Your task to perform on an android device: change the clock style Image 0: 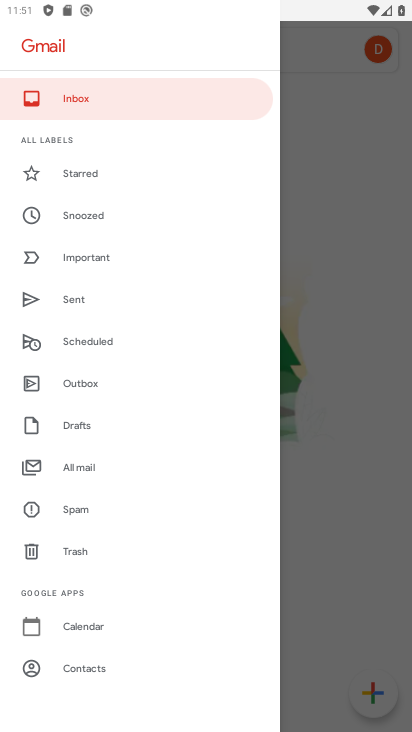
Step 0: press home button
Your task to perform on an android device: change the clock style Image 1: 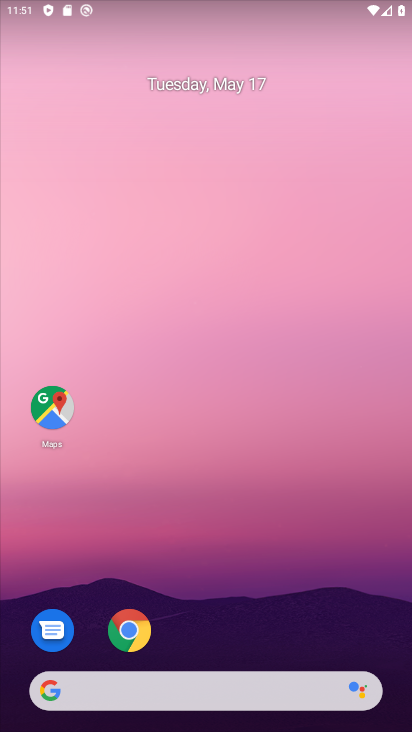
Step 1: drag from (305, 593) to (270, 259)
Your task to perform on an android device: change the clock style Image 2: 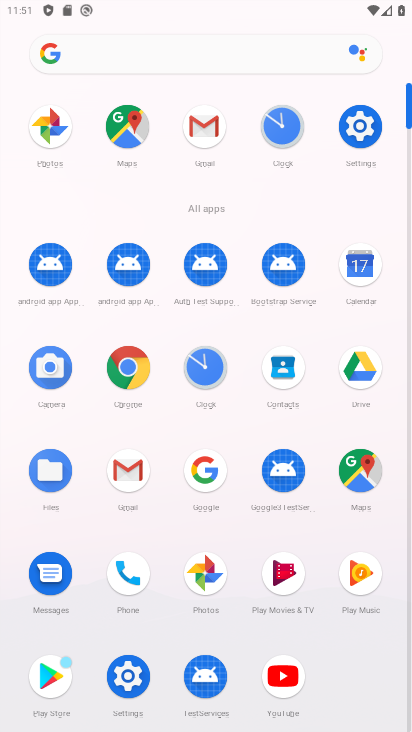
Step 2: click (277, 132)
Your task to perform on an android device: change the clock style Image 3: 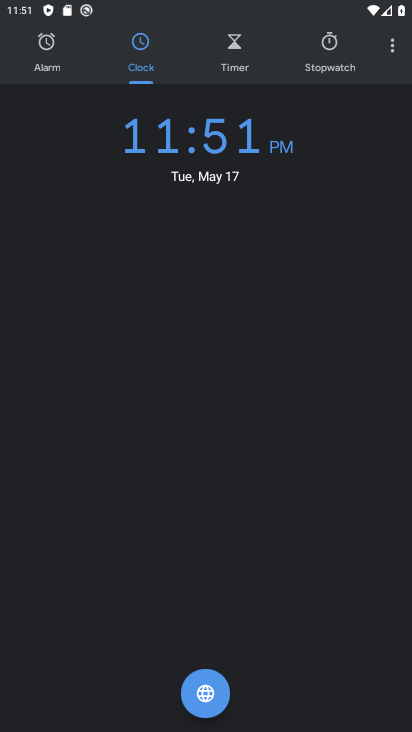
Step 3: click (385, 52)
Your task to perform on an android device: change the clock style Image 4: 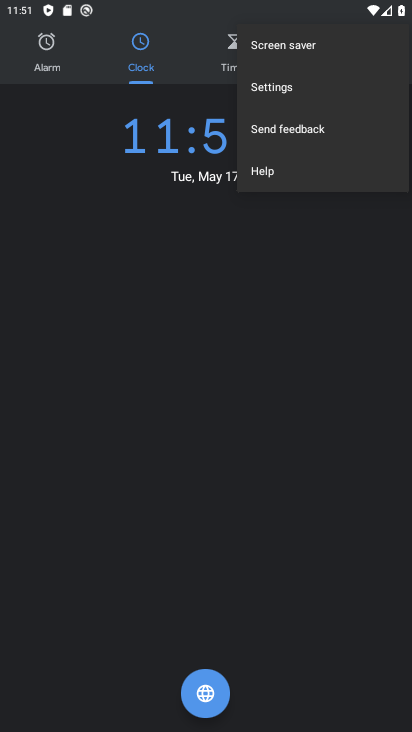
Step 4: click (314, 82)
Your task to perform on an android device: change the clock style Image 5: 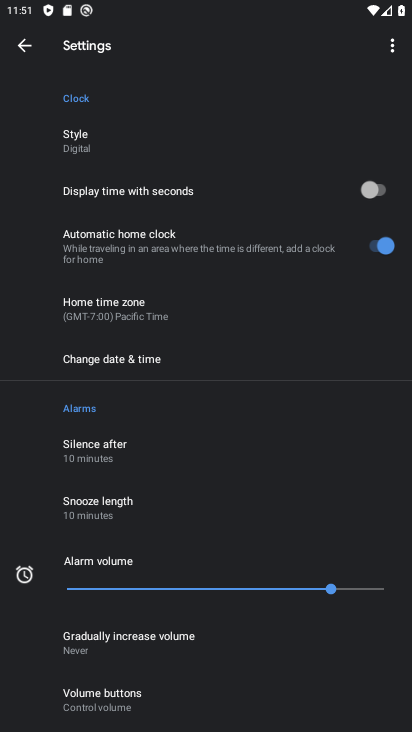
Step 5: click (70, 140)
Your task to perform on an android device: change the clock style Image 6: 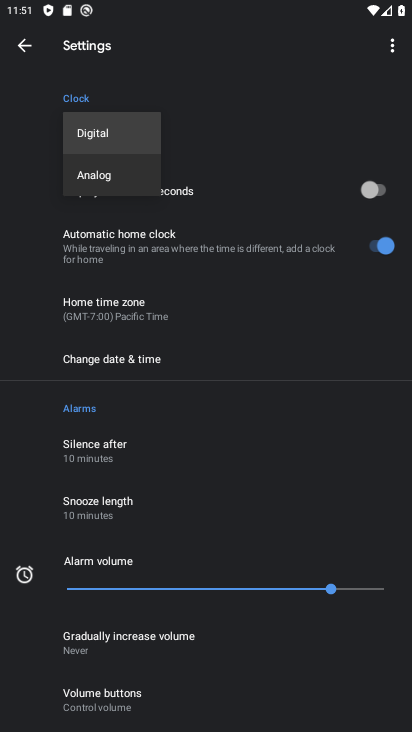
Step 6: click (88, 184)
Your task to perform on an android device: change the clock style Image 7: 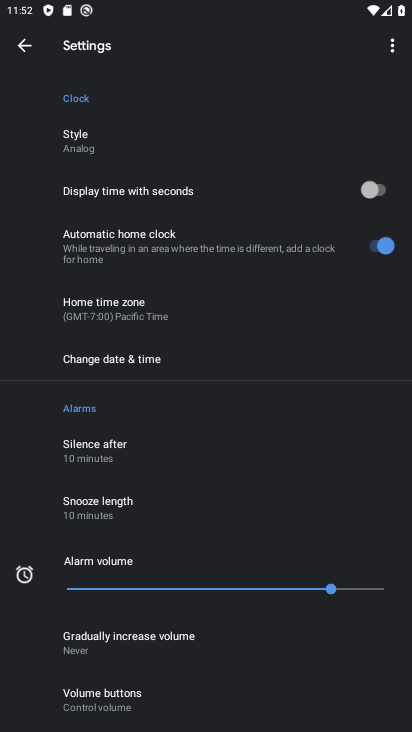
Step 7: task complete